Your task to perform on an android device: Open sound settings Image 0: 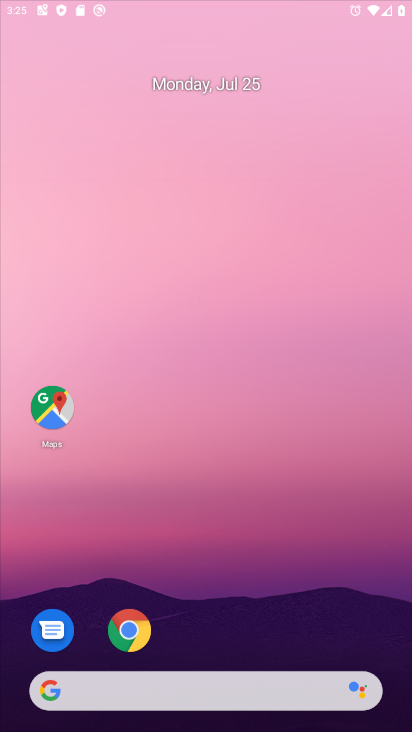
Step 0: drag from (215, 654) to (233, 189)
Your task to perform on an android device: Open sound settings Image 1: 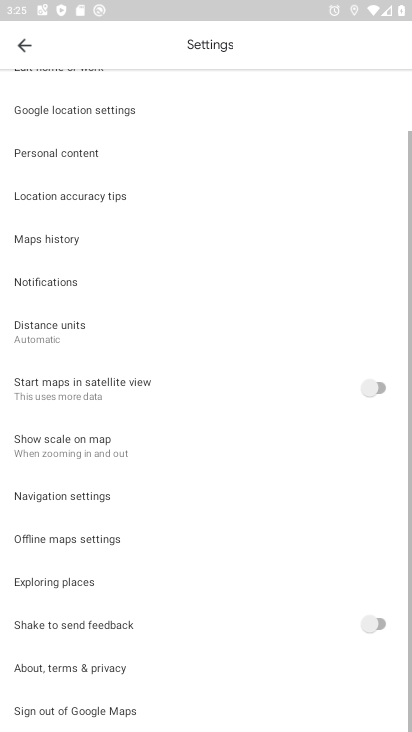
Step 1: press home button
Your task to perform on an android device: Open sound settings Image 2: 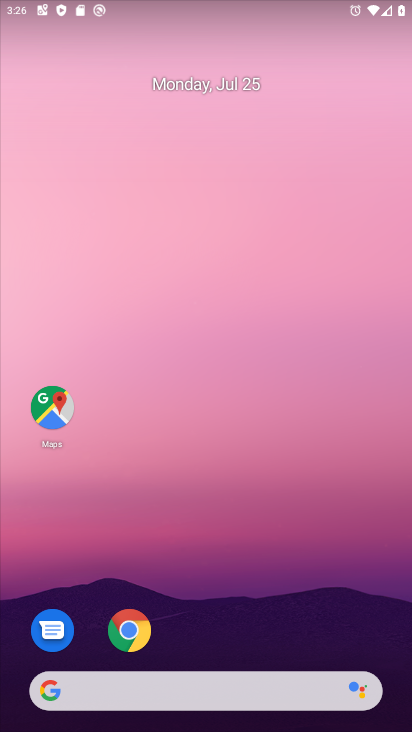
Step 2: drag from (202, 667) to (230, 127)
Your task to perform on an android device: Open sound settings Image 3: 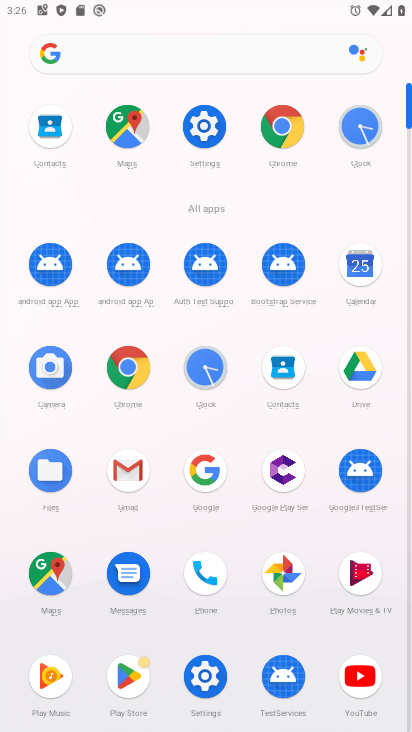
Step 3: click (191, 123)
Your task to perform on an android device: Open sound settings Image 4: 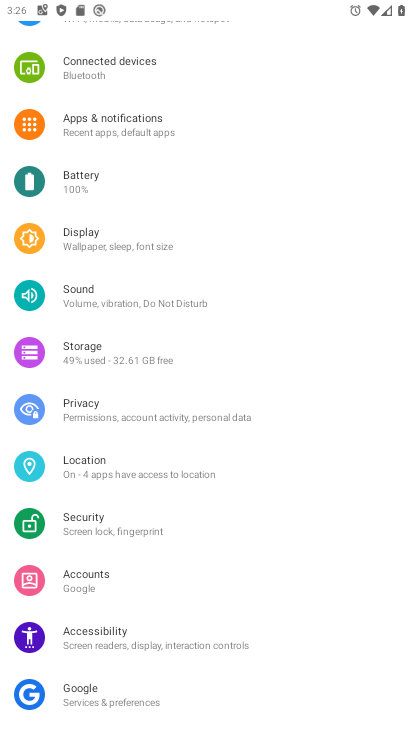
Step 4: click (136, 294)
Your task to perform on an android device: Open sound settings Image 5: 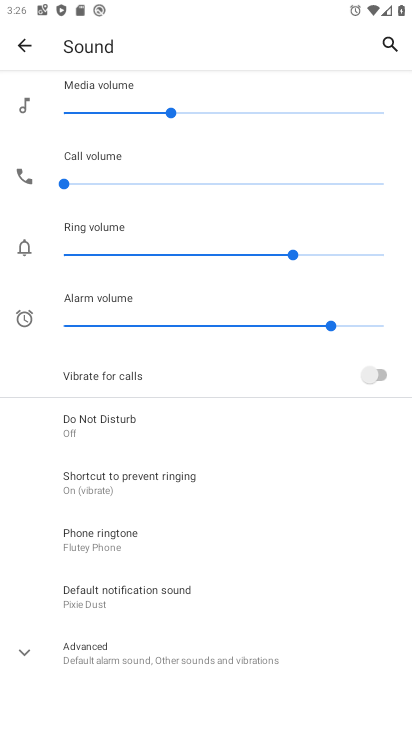
Step 5: task complete